Your task to perform on an android device: Search for "macbook pro" on target, select the first entry, and add it to the cart. Image 0: 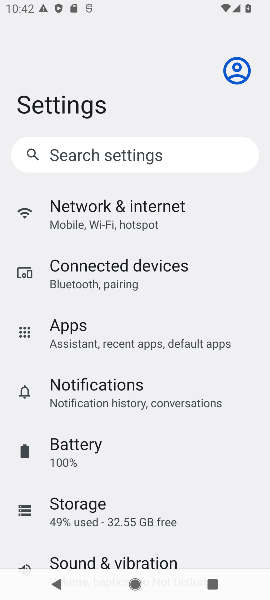
Step 0: task complete